Your task to perform on an android device: delete browsing data in the chrome app Image 0: 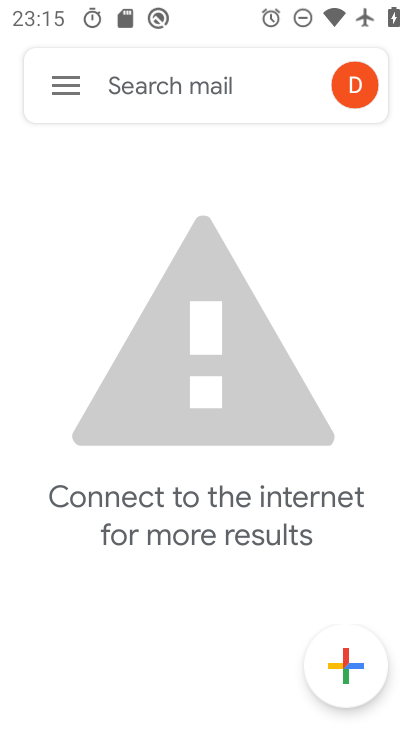
Step 0: press home button
Your task to perform on an android device: delete browsing data in the chrome app Image 1: 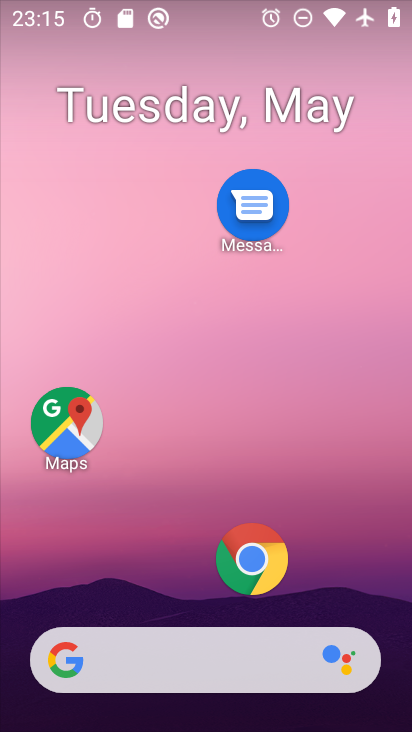
Step 1: click (250, 580)
Your task to perform on an android device: delete browsing data in the chrome app Image 2: 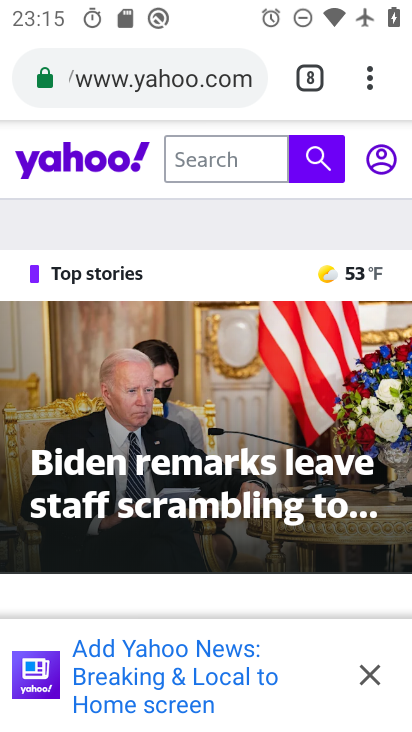
Step 2: task complete